Your task to perform on an android device: Open the Play Movies app and select the watchlist tab. Image 0: 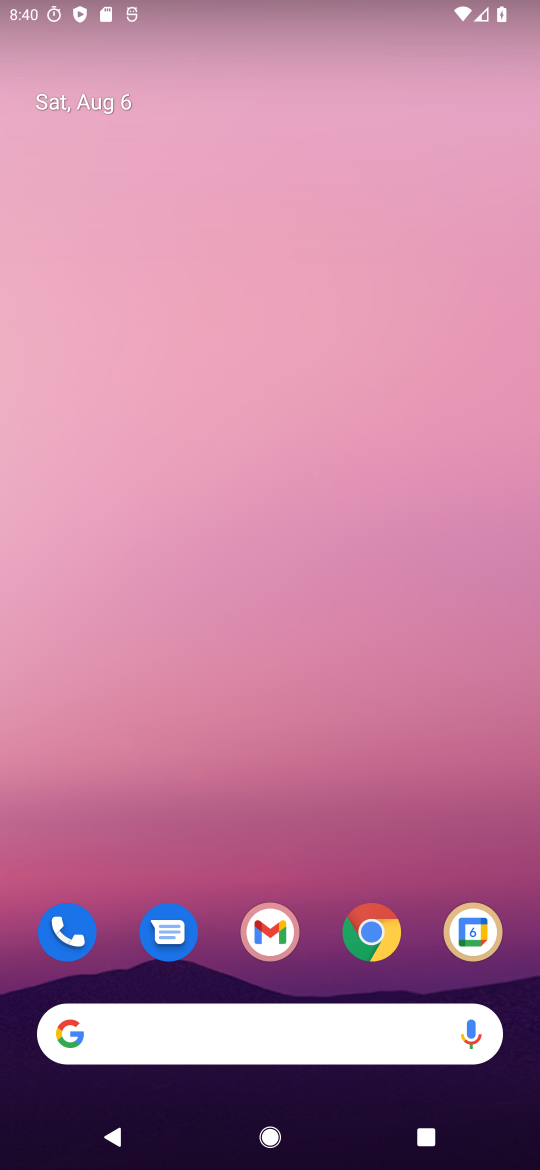
Step 0: press home button
Your task to perform on an android device: Open the Play Movies app and select the watchlist tab. Image 1: 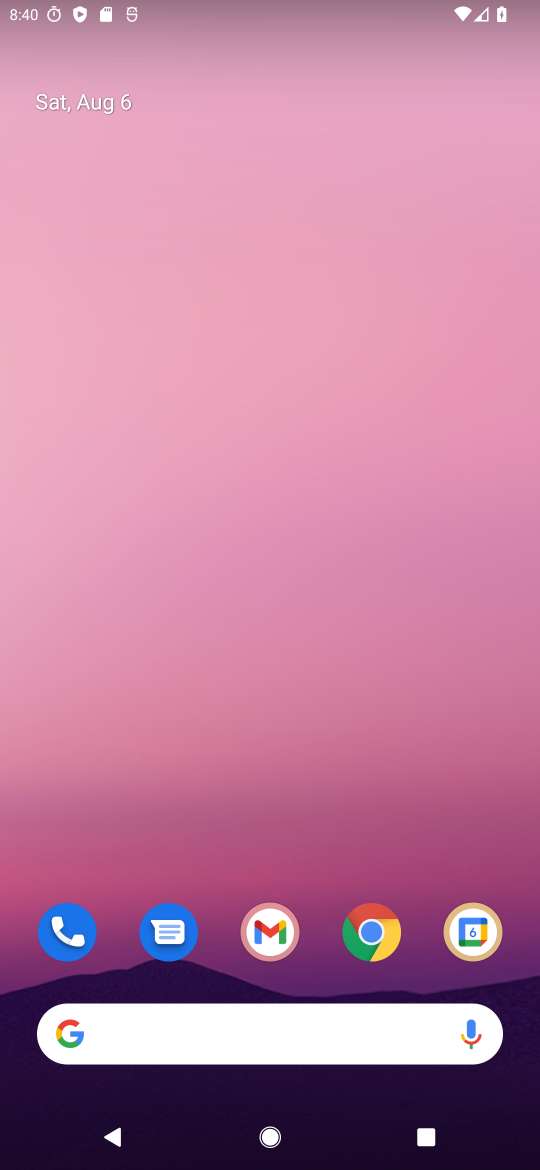
Step 1: task complete